Your task to perform on an android device: check out phone information Image 0: 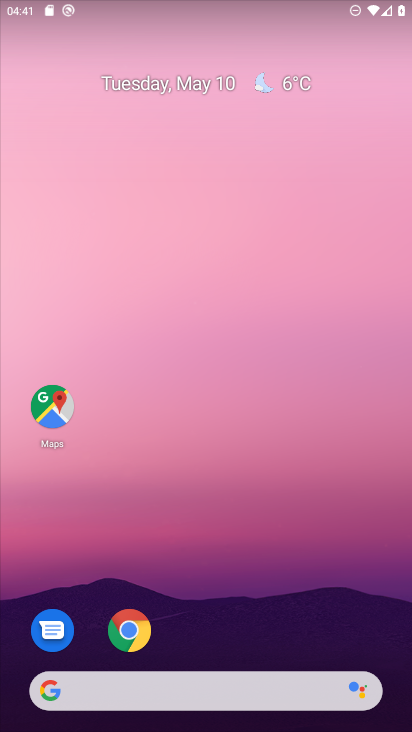
Step 0: drag from (231, 598) to (279, 76)
Your task to perform on an android device: check out phone information Image 1: 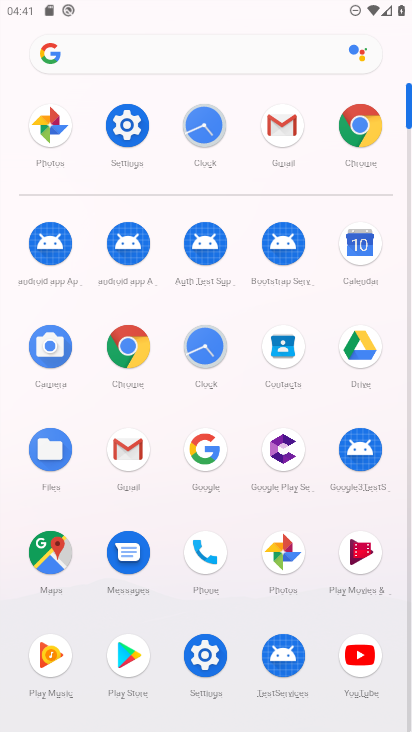
Step 1: click (123, 137)
Your task to perform on an android device: check out phone information Image 2: 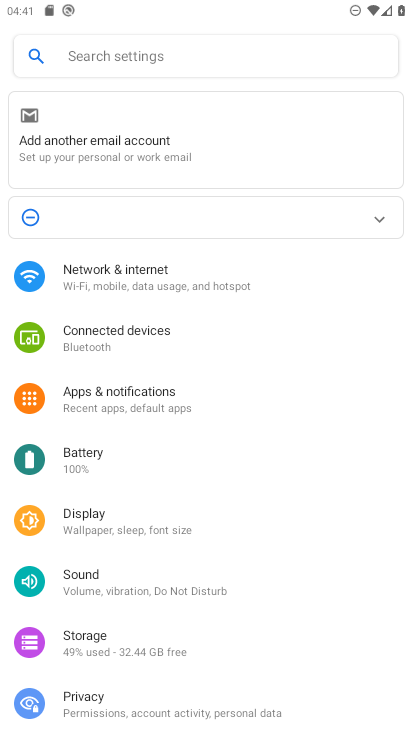
Step 2: drag from (68, 682) to (150, 118)
Your task to perform on an android device: check out phone information Image 3: 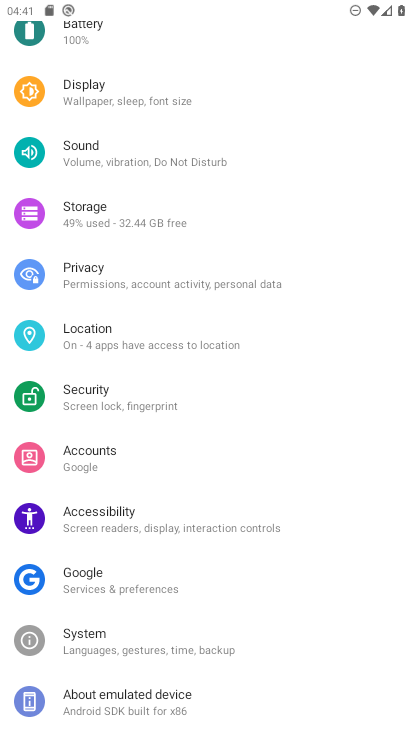
Step 3: click (247, 705)
Your task to perform on an android device: check out phone information Image 4: 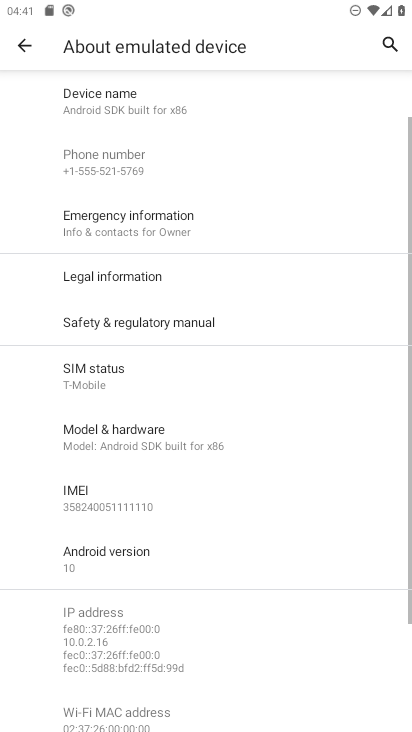
Step 4: task complete